Your task to perform on an android device: Open privacy settings Image 0: 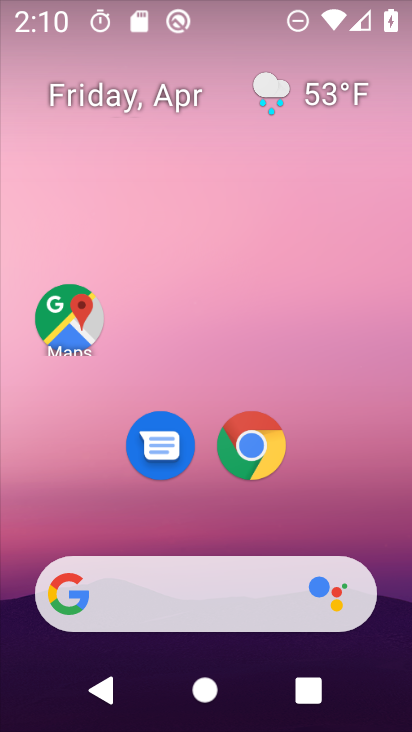
Step 0: drag from (368, 515) to (380, 134)
Your task to perform on an android device: Open privacy settings Image 1: 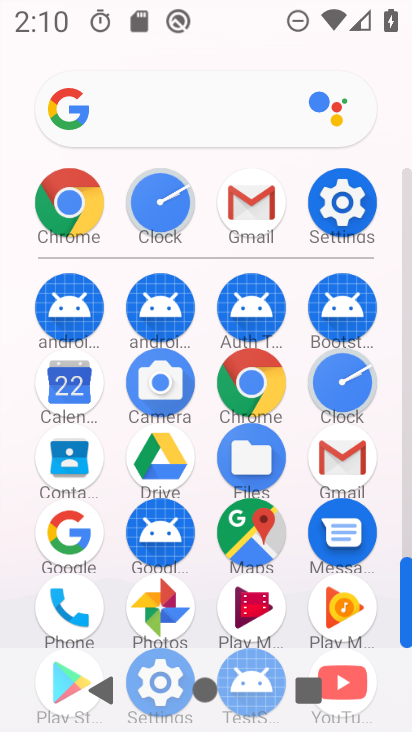
Step 1: click (343, 211)
Your task to perform on an android device: Open privacy settings Image 2: 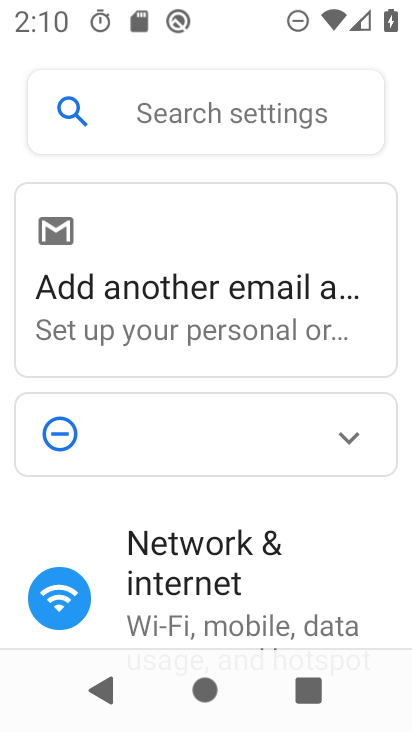
Step 2: drag from (341, 516) to (368, 203)
Your task to perform on an android device: Open privacy settings Image 3: 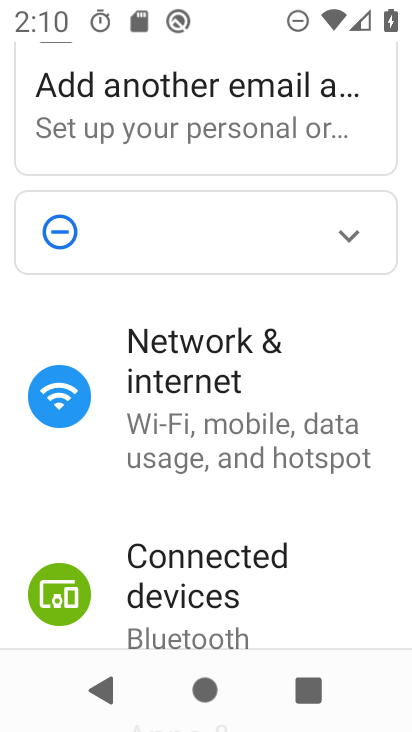
Step 3: drag from (341, 568) to (347, 339)
Your task to perform on an android device: Open privacy settings Image 4: 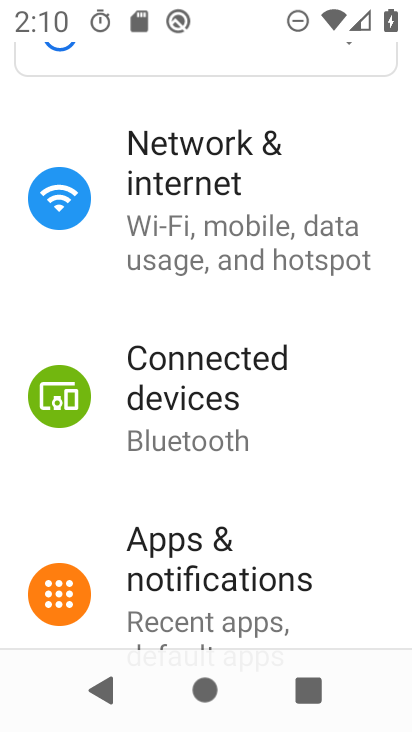
Step 4: drag from (353, 563) to (359, 290)
Your task to perform on an android device: Open privacy settings Image 5: 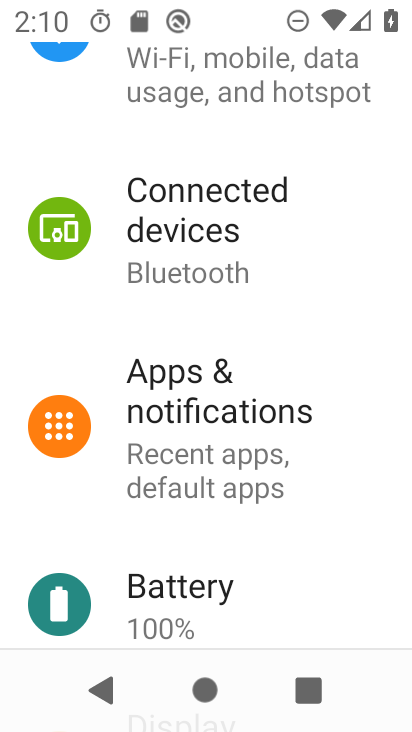
Step 5: drag from (331, 444) to (345, 281)
Your task to perform on an android device: Open privacy settings Image 6: 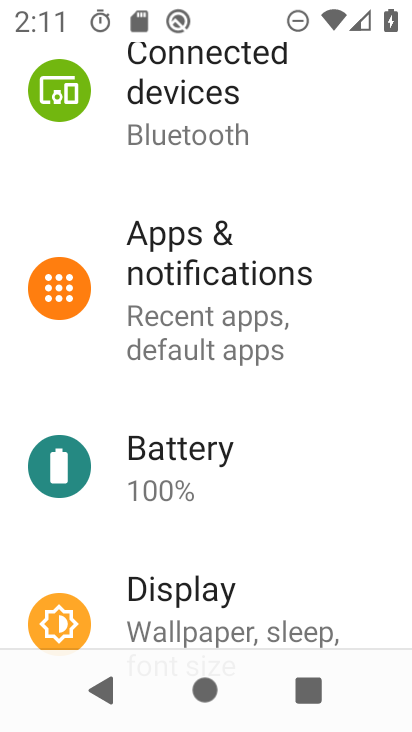
Step 6: drag from (329, 497) to (342, 280)
Your task to perform on an android device: Open privacy settings Image 7: 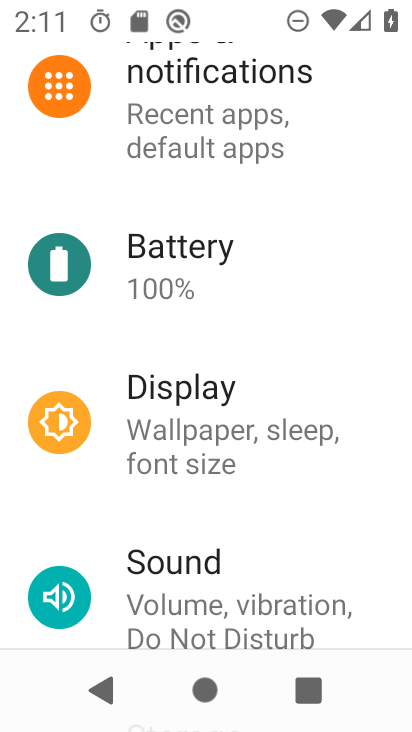
Step 7: drag from (339, 507) to (341, 293)
Your task to perform on an android device: Open privacy settings Image 8: 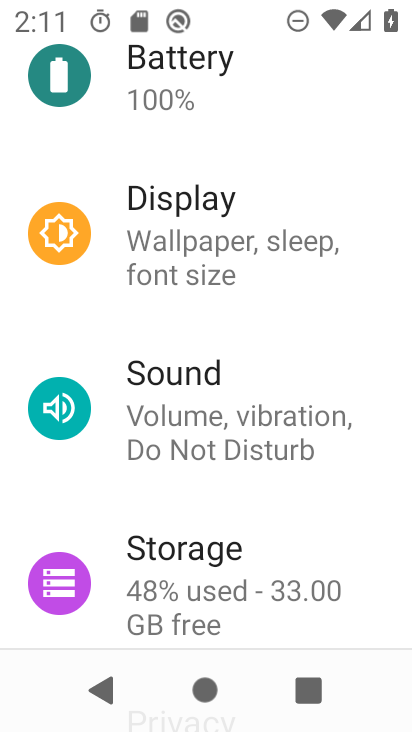
Step 8: drag from (349, 495) to (373, 246)
Your task to perform on an android device: Open privacy settings Image 9: 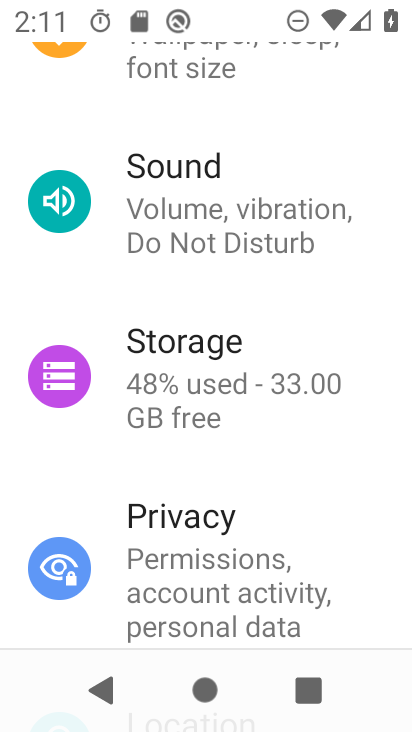
Step 9: drag from (340, 541) to (371, 286)
Your task to perform on an android device: Open privacy settings Image 10: 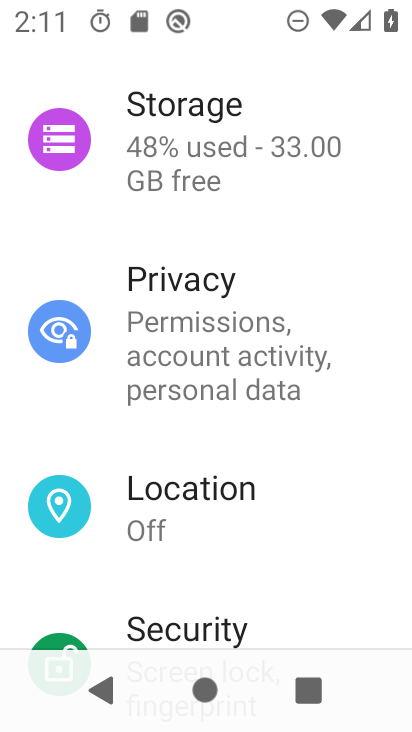
Step 10: click (201, 349)
Your task to perform on an android device: Open privacy settings Image 11: 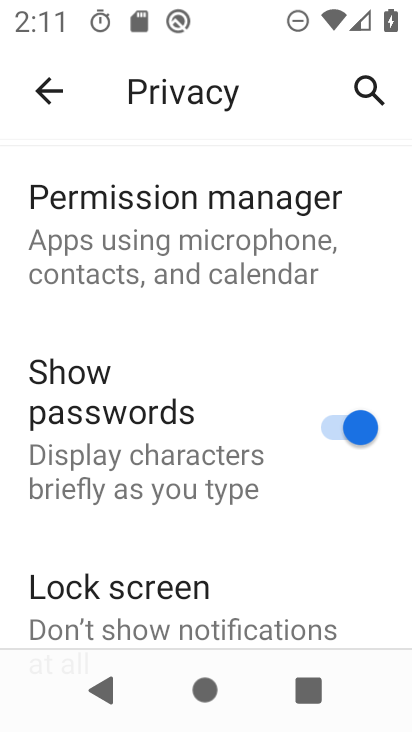
Step 11: task complete